Your task to perform on an android device: Open calendar and show me the third week of next month Image 0: 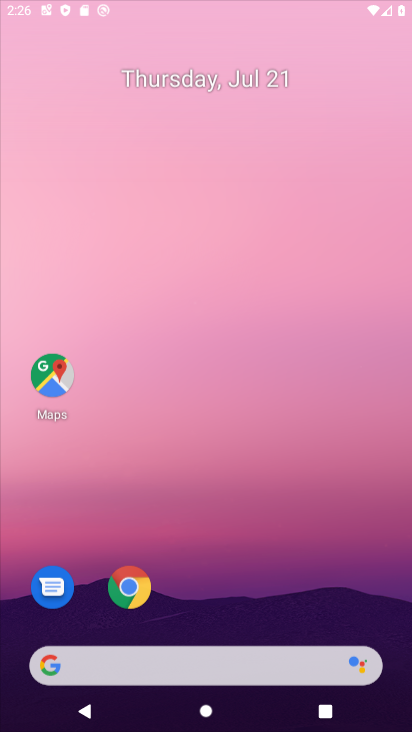
Step 0: drag from (186, 116) to (266, 5)
Your task to perform on an android device: Open calendar and show me the third week of next month Image 1: 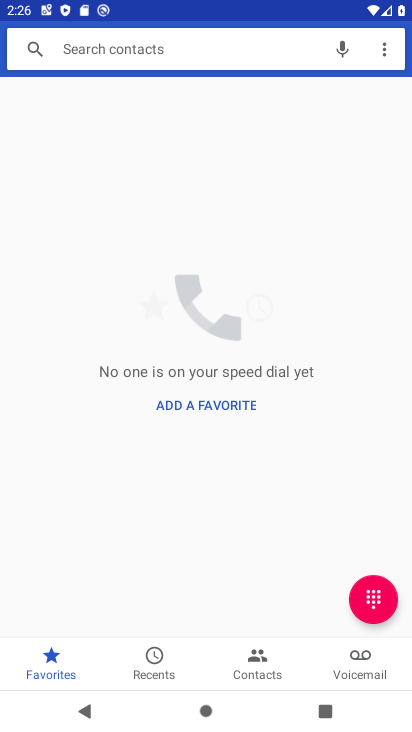
Step 1: press home button
Your task to perform on an android device: Open calendar and show me the third week of next month Image 2: 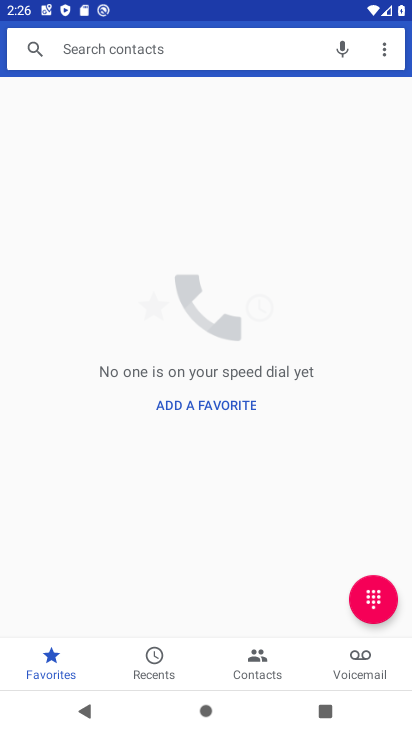
Step 2: press home button
Your task to perform on an android device: Open calendar and show me the third week of next month Image 3: 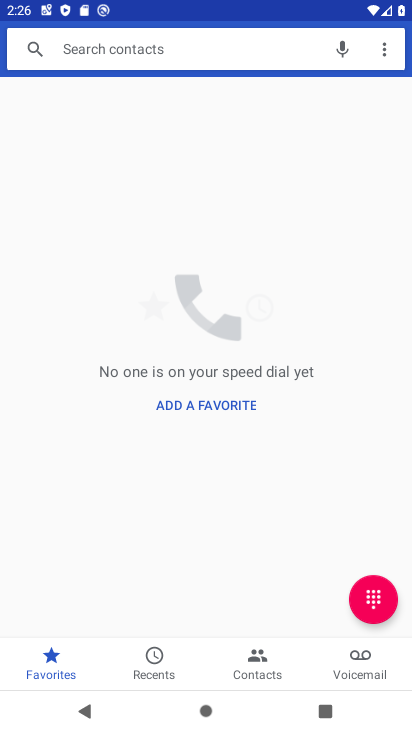
Step 3: drag from (234, 262) to (234, 101)
Your task to perform on an android device: Open calendar and show me the third week of next month Image 4: 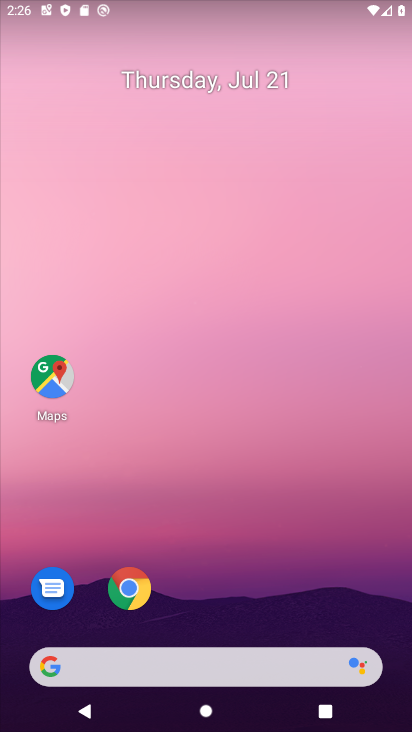
Step 4: drag from (194, 632) to (320, 75)
Your task to perform on an android device: Open calendar and show me the third week of next month Image 5: 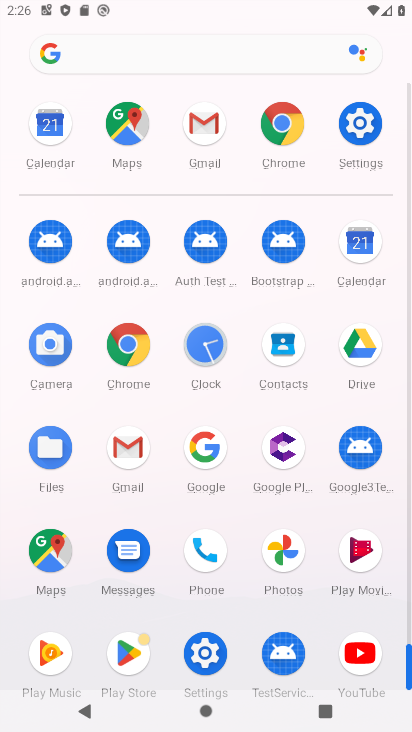
Step 5: click (349, 229)
Your task to perform on an android device: Open calendar and show me the third week of next month Image 6: 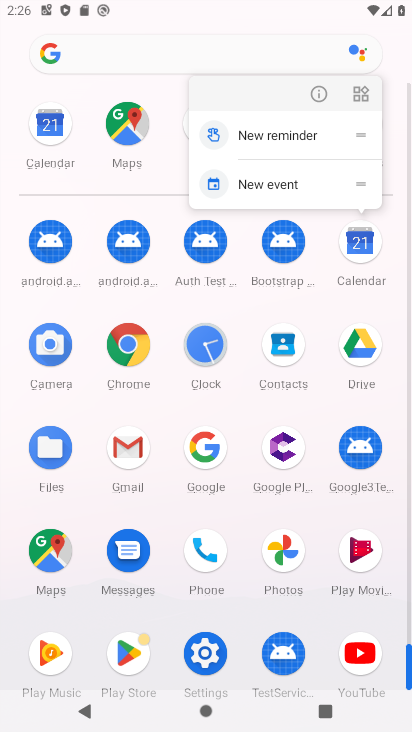
Step 6: click (315, 86)
Your task to perform on an android device: Open calendar and show me the third week of next month Image 7: 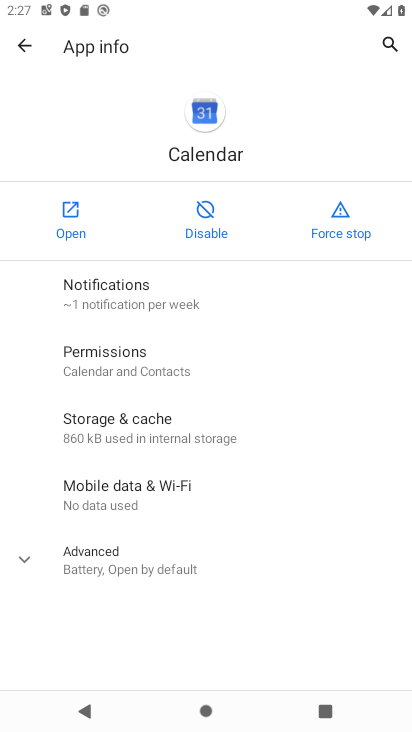
Step 7: click (65, 224)
Your task to perform on an android device: Open calendar and show me the third week of next month Image 8: 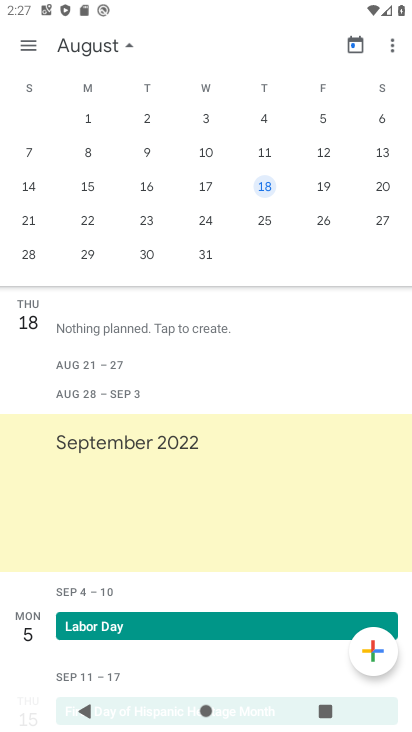
Step 8: click (71, 45)
Your task to perform on an android device: Open calendar and show me the third week of next month Image 9: 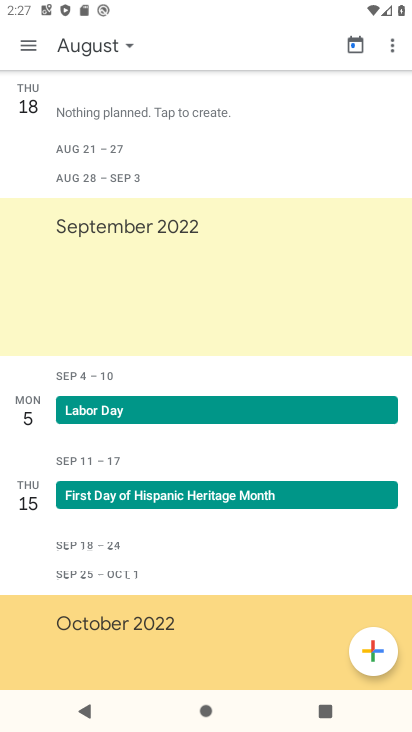
Step 9: click (103, 49)
Your task to perform on an android device: Open calendar and show me the third week of next month Image 10: 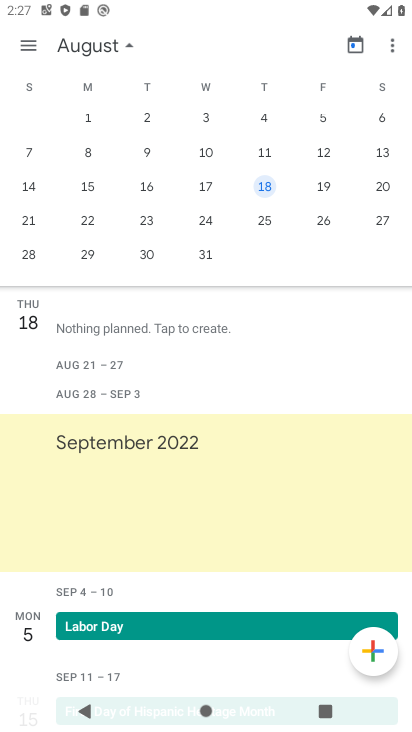
Step 10: click (357, 45)
Your task to perform on an android device: Open calendar and show me the third week of next month Image 11: 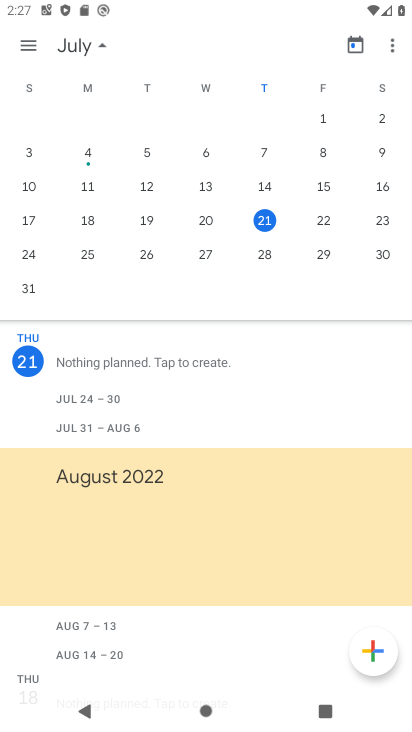
Step 11: drag from (369, 185) to (1, 175)
Your task to perform on an android device: Open calendar and show me the third week of next month Image 12: 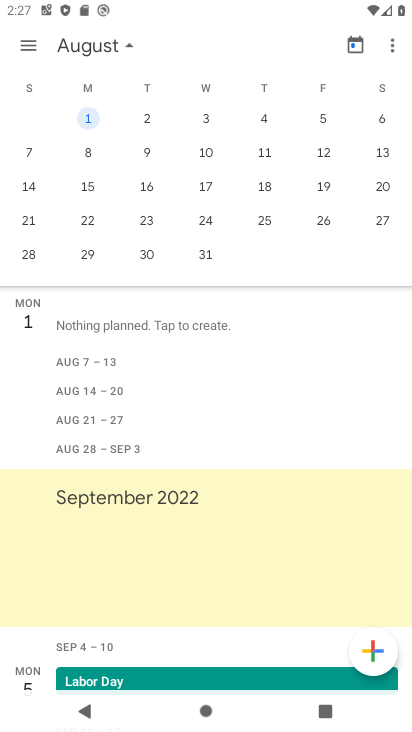
Step 12: click (265, 186)
Your task to perform on an android device: Open calendar and show me the third week of next month Image 13: 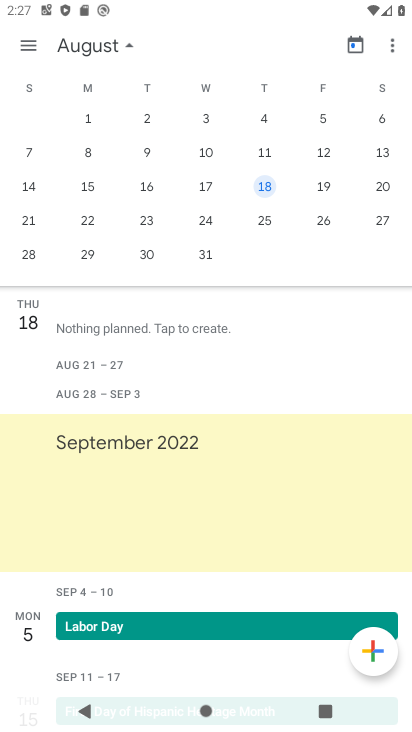
Step 13: task complete